Your task to perform on an android device: Open the map Image 0: 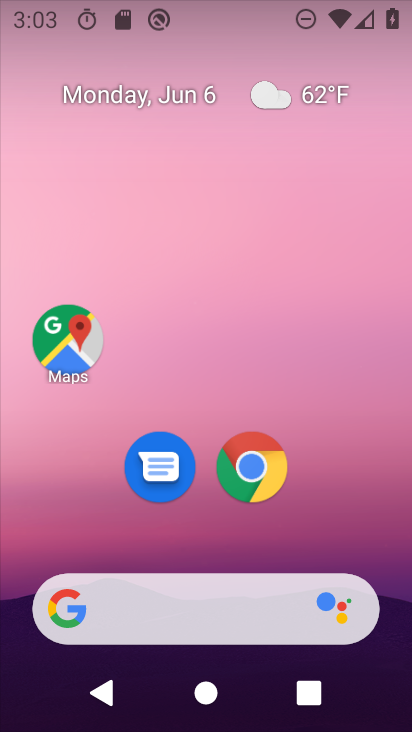
Step 0: click (88, 340)
Your task to perform on an android device: Open the map Image 1: 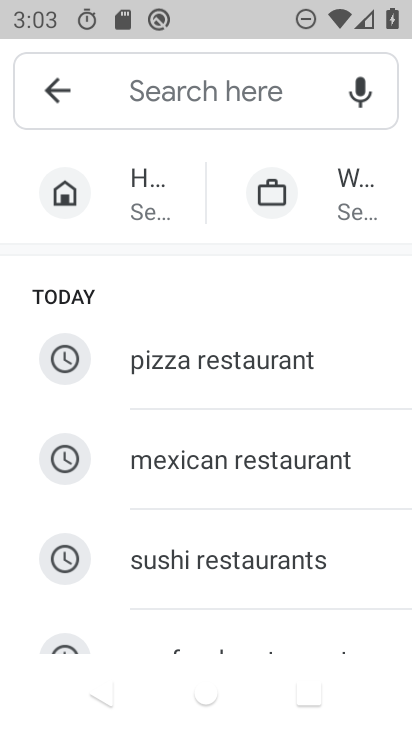
Step 1: task complete